Your task to perform on an android device: Go to display settings Image 0: 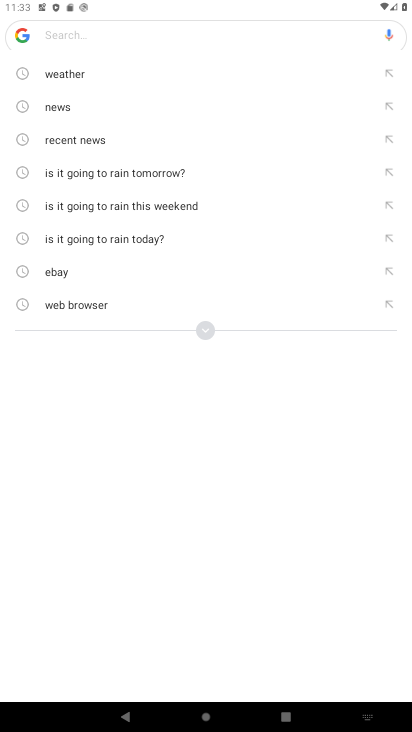
Step 0: press home button
Your task to perform on an android device: Go to display settings Image 1: 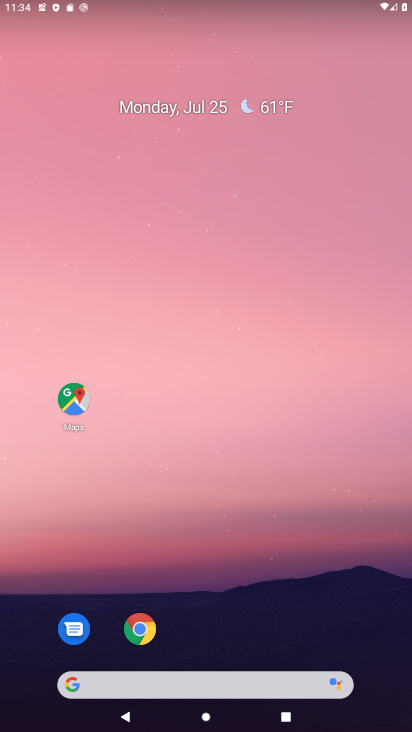
Step 1: drag from (212, 626) to (147, 162)
Your task to perform on an android device: Go to display settings Image 2: 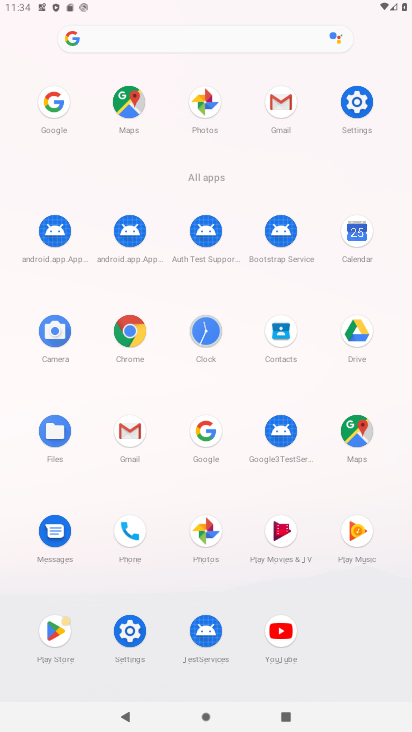
Step 2: click (343, 105)
Your task to perform on an android device: Go to display settings Image 3: 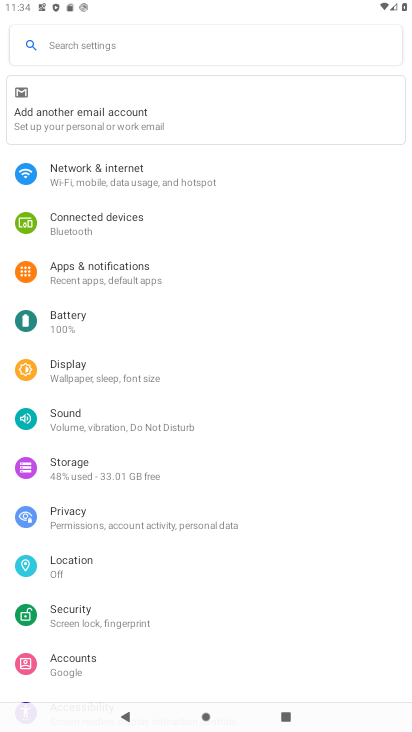
Step 3: click (98, 390)
Your task to perform on an android device: Go to display settings Image 4: 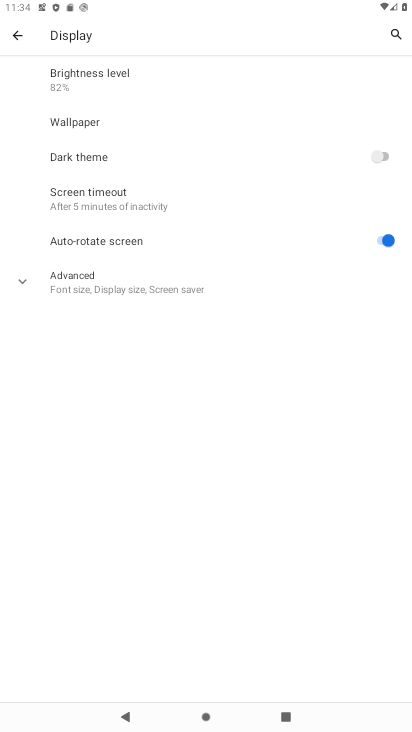
Step 4: task complete